Your task to perform on an android device: Go to location settings Image 0: 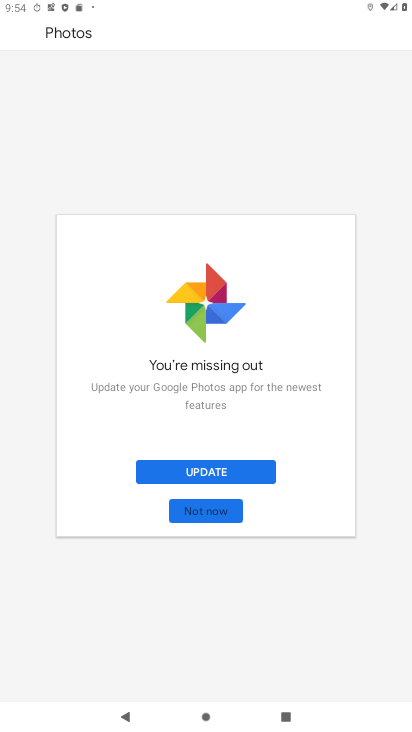
Step 0: press home button
Your task to perform on an android device: Go to location settings Image 1: 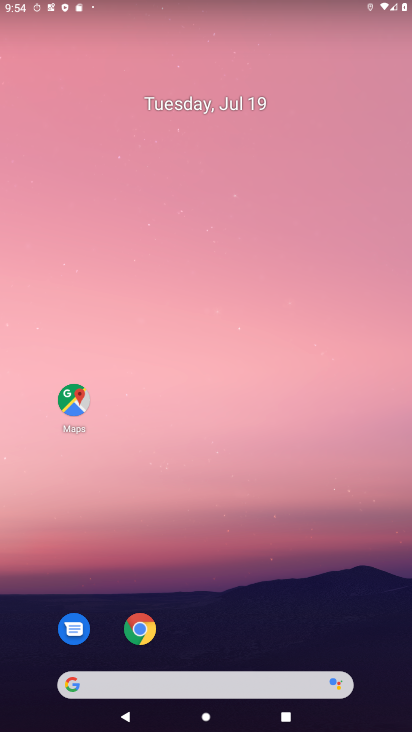
Step 1: drag from (216, 606) to (213, 25)
Your task to perform on an android device: Go to location settings Image 2: 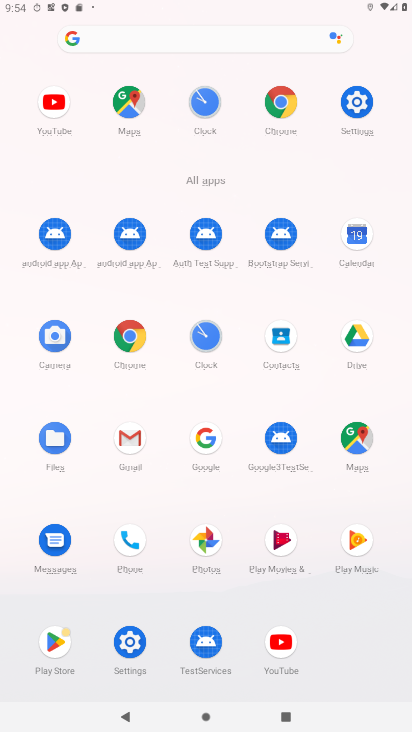
Step 2: click (126, 652)
Your task to perform on an android device: Go to location settings Image 3: 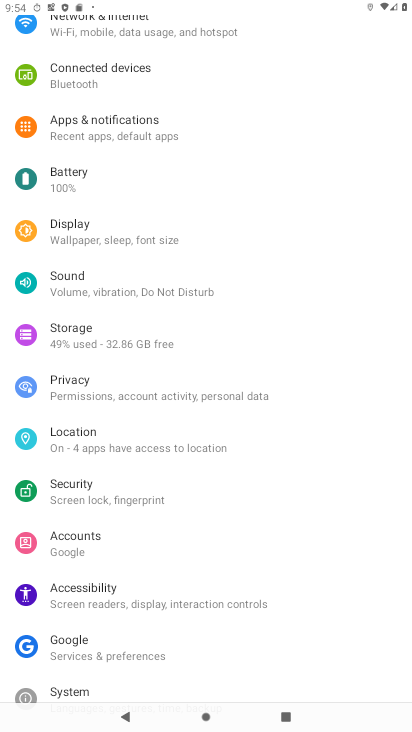
Step 3: click (84, 433)
Your task to perform on an android device: Go to location settings Image 4: 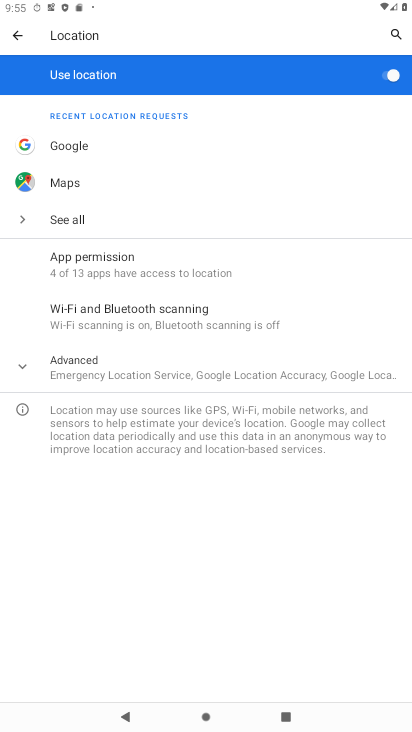
Step 4: task complete